Your task to perform on an android device: turn off priority inbox in the gmail app Image 0: 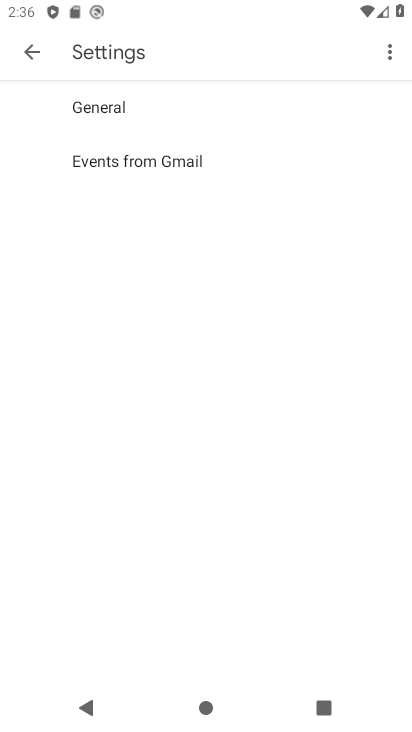
Step 0: press home button
Your task to perform on an android device: turn off priority inbox in the gmail app Image 1: 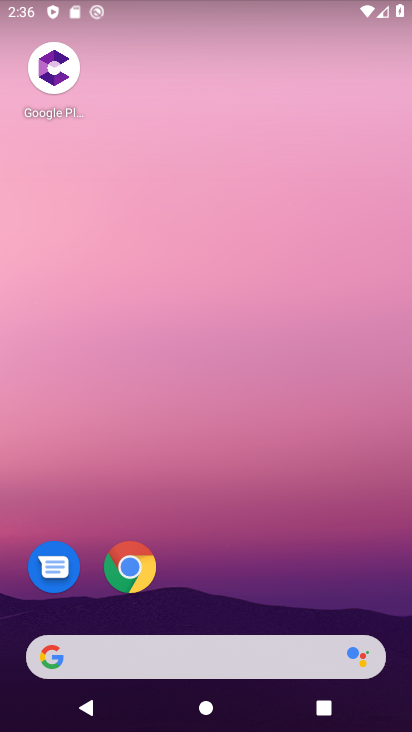
Step 1: drag from (227, 585) to (218, 350)
Your task to perform on an android device: turn off priority inbox in the gmail app Image 2: 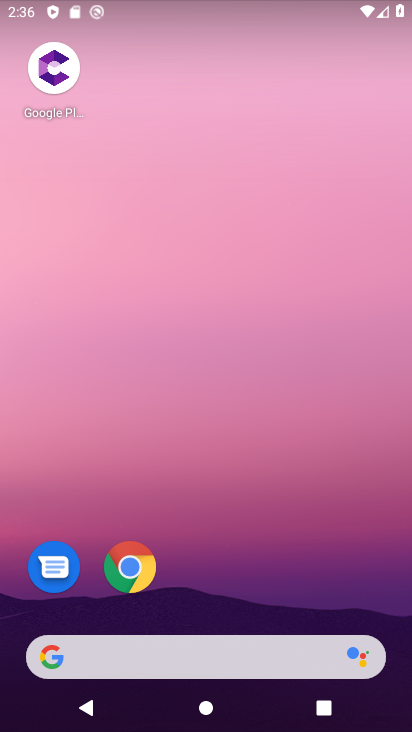
Step 2: drag from (216, 594) to (194, 343)
Your task to perform on an android device: turn off priority inbox in the gmail app Image 3: 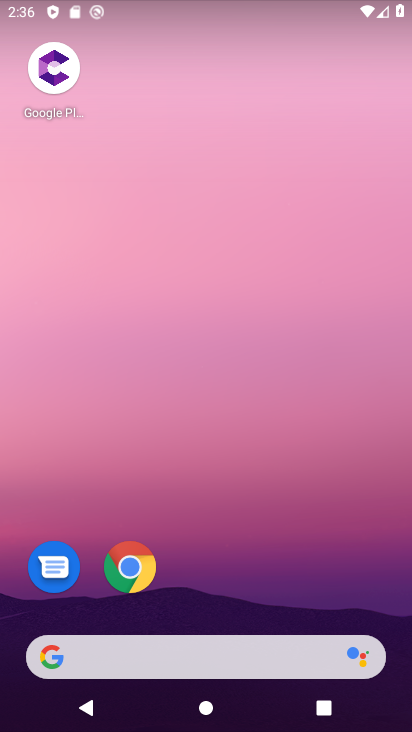
Step 3: drag from (272, 480) to (246, 15)
Your task to perform on an android device: turn off priority inbox in the gmail app Image 4: 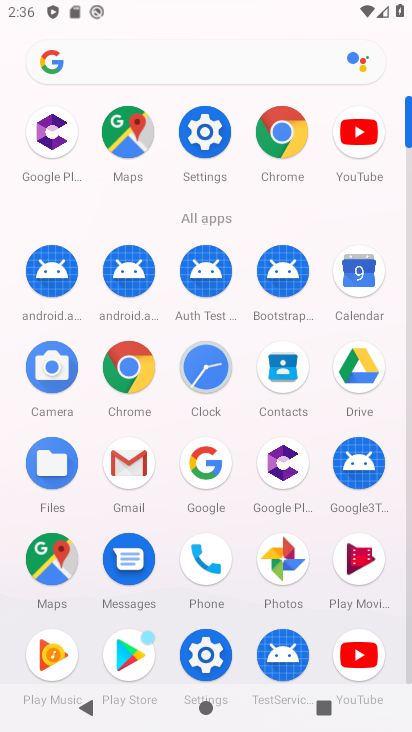
Step 4: click (129, 461)
Your task to perform on an android device: turn off priority inbox in the gmail app Image 5: 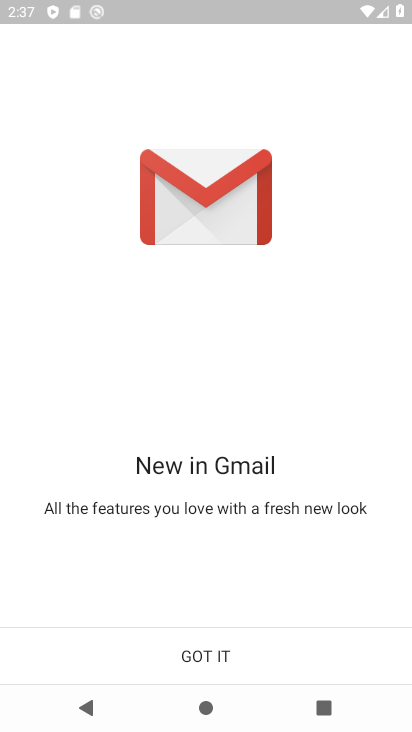
Step 5: click (195, 655)
Your task to perform on an android device: turn off priority inbox in the gmail app Image 6: 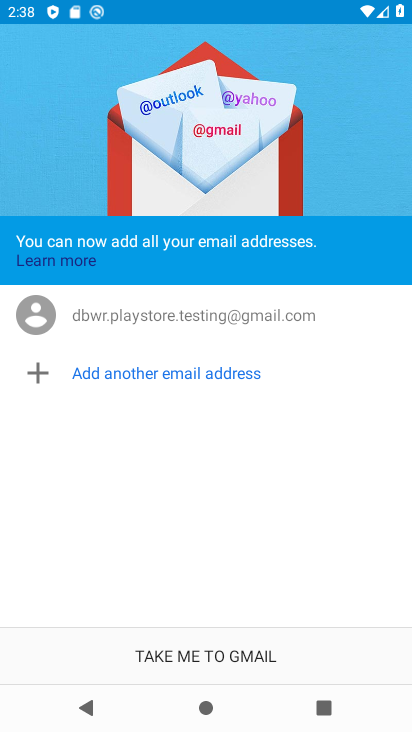
Step 6: click (167, 652)
Your task to perform on an android device: turn off priority inbox in the gmail app Image 7: 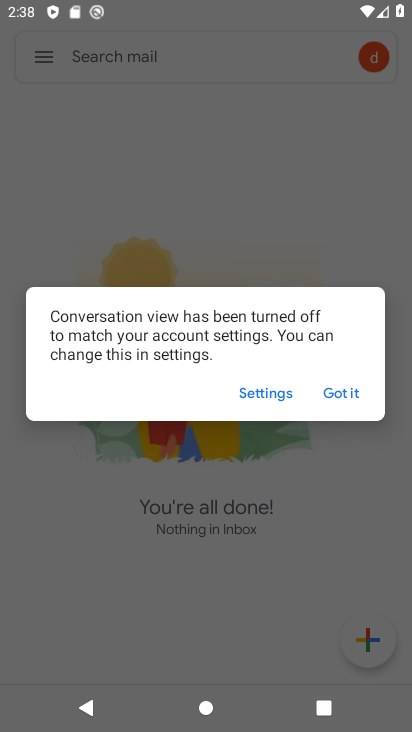
Step 7: click (343, 391)
Your task to perform on an android device: turn off priority inbox in the gmail app Image 8: 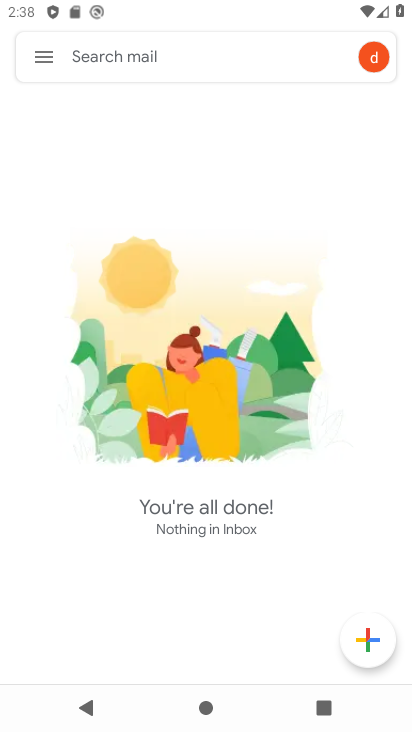
Step 8: click (43, 57)
Your task to perform on an android device: turn off priority inbox in the gmail app Image 9: 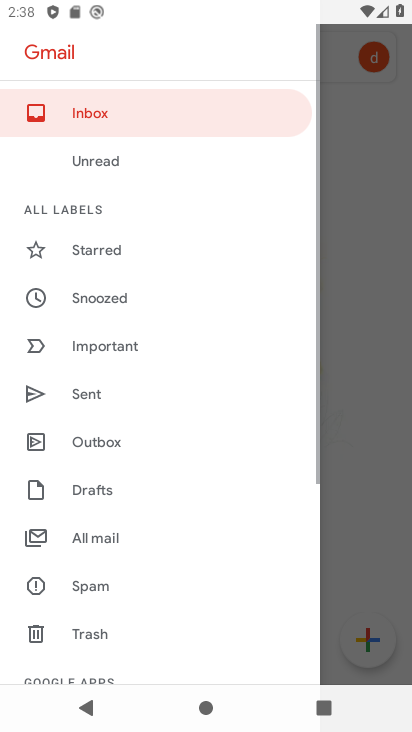
Step 9: drag from (137, 576) to (127, 190)
Your task to perform on an android device: turn off priority inbox in the gmail app Image 10: 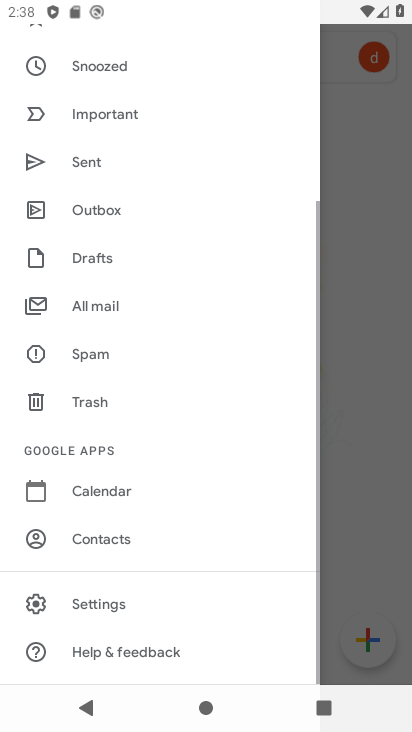
Step 10: click (105, 599)
Your task to perform on an android device: turn off priority inbox in the gmail app Image 11: 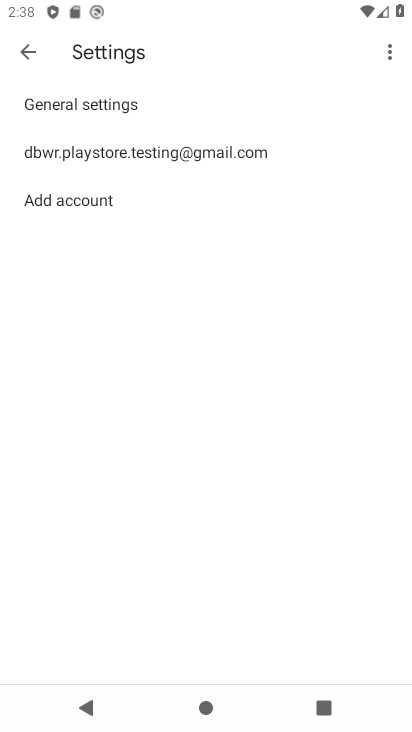
Step 11: click (101, 151)
Your task to perform on an android device: turn off priority inbox in the gmail app Image 12: 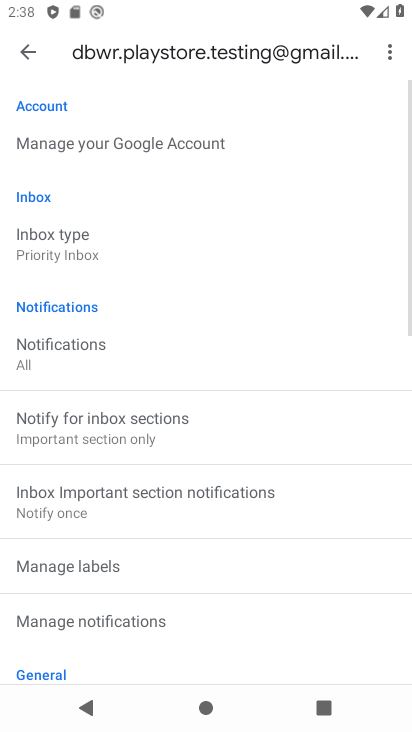
Step 12: click (62, 251)
Your task to perform on an android device: turn off priority inbox in the gmail app Image 13: 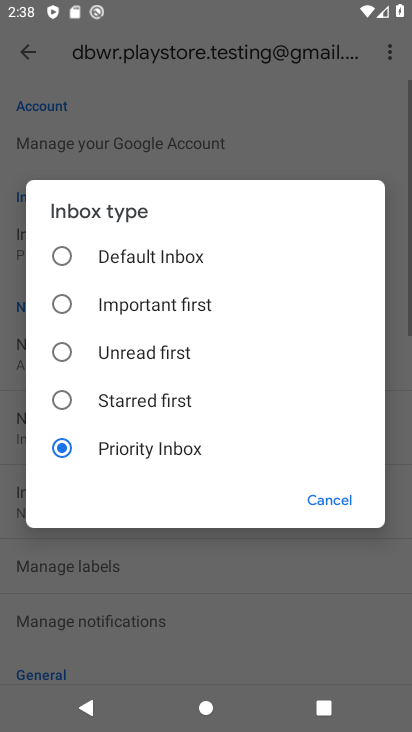
Step 13: click (72, 249)
Your task to perform on an android device: turn off priority inbox in the gmail app Image 14: 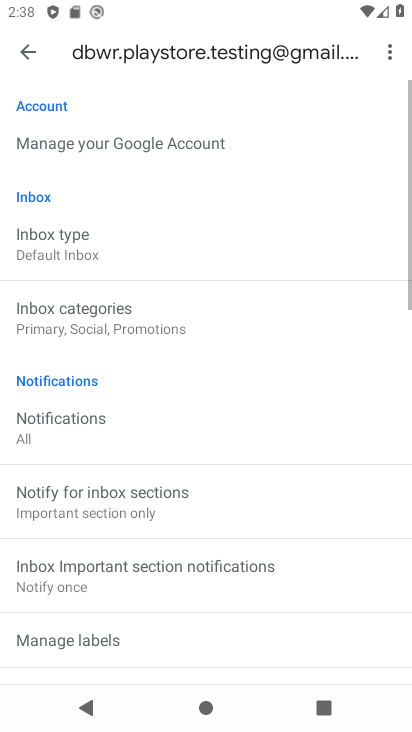
Step 14: click (62, 251)
Your task to perform on an android device: turn off priority inbox in the gmail app Image 15: 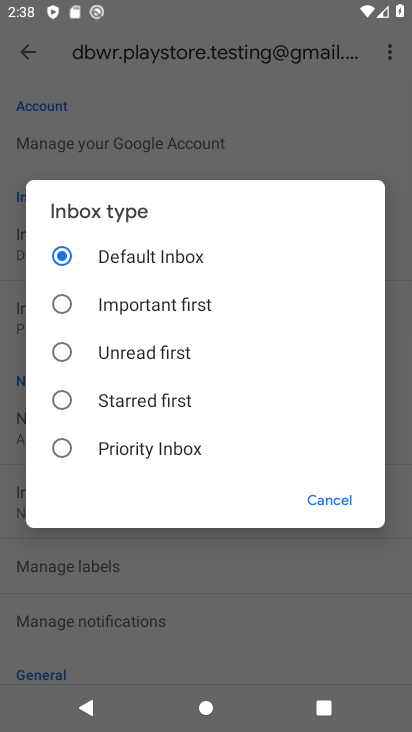
Step 15: click (311, 394)
Your task to perform on an android device: turn off priority inbox in the gmail app Image 16: 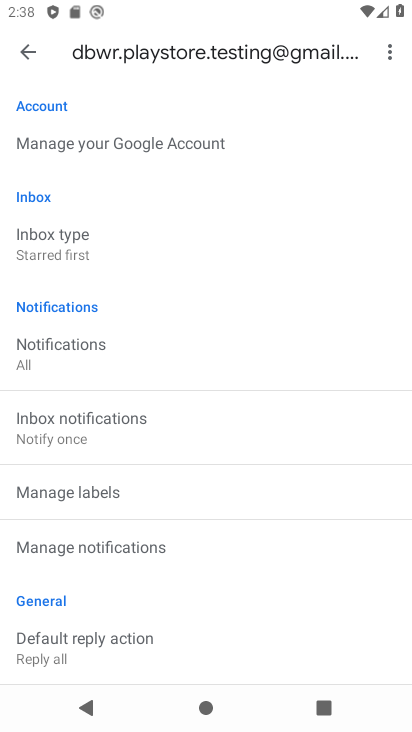
Step 16: task complete